Your task to perform on an android device: Open network settings Image 0: 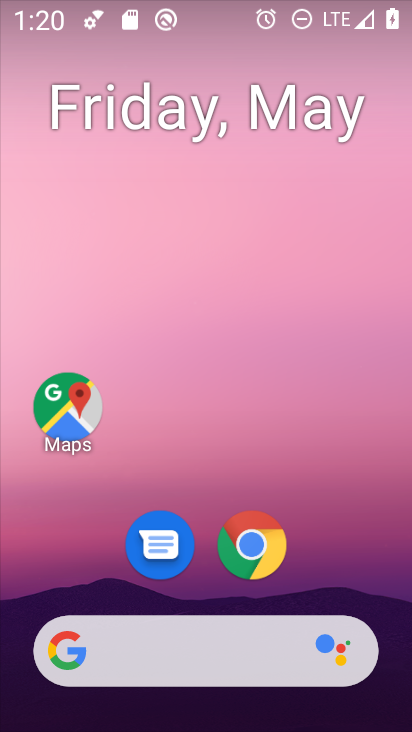
Step 0: drag from (325, 591) to (325, 198)
Your task to perform on an android device: Open network settings Image 1: 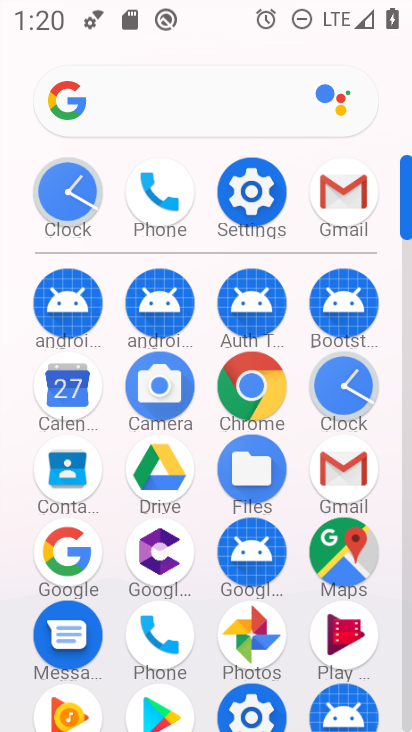
Step 1: click (241, 195)
Your task to perform on an android device: Open network settings Image 2: 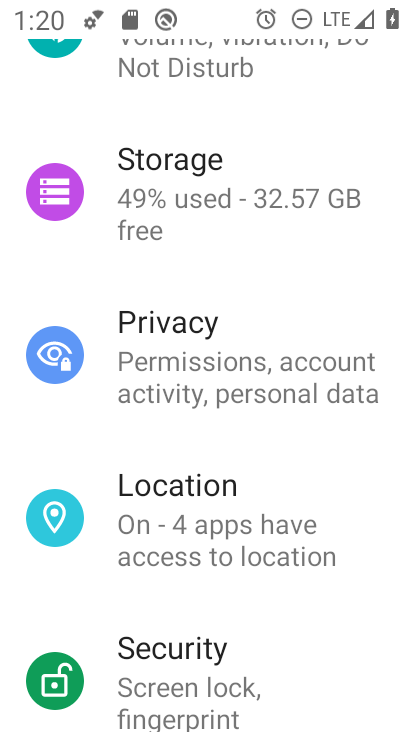
Step 2: drag from (192, 276) to (243, 581)
Your task to perform on an android device: Open network settings Image 3: 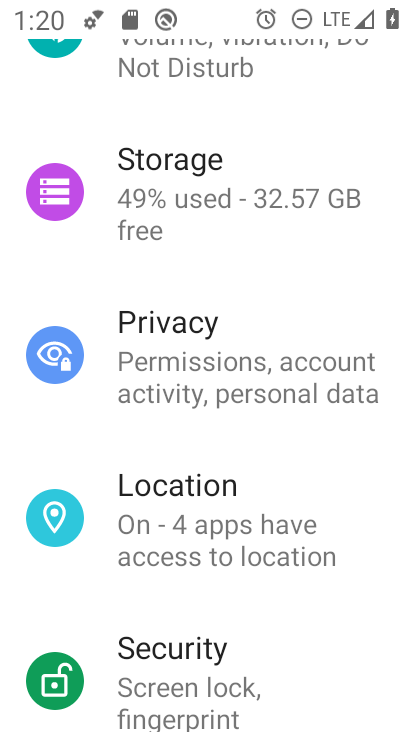
Step 3: drag from (233, 326) to (242, 514)
Your task to perform on an android device: Open network settings Image 4: 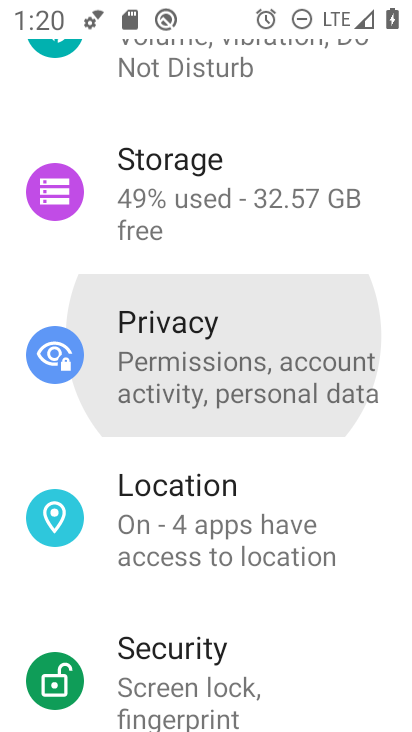
Step 4: drag from (215, 212) to (196, 527)
Your task to perform on an android device: Open network settings Image 5: 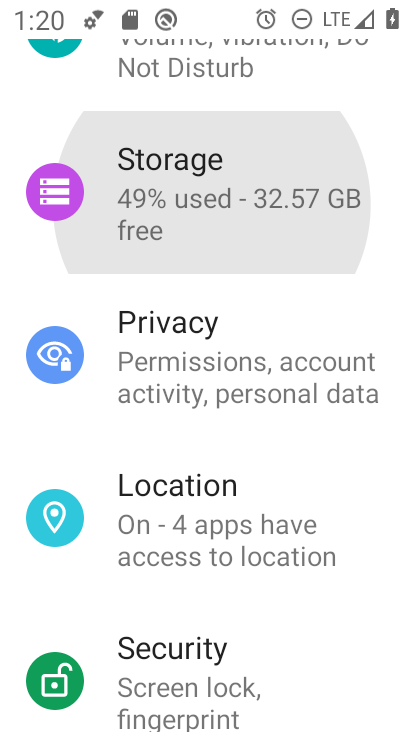
Step 5: drag from (150, 273) to (161, 532)
Your task to perform on an android device: Open network settings Image 6: 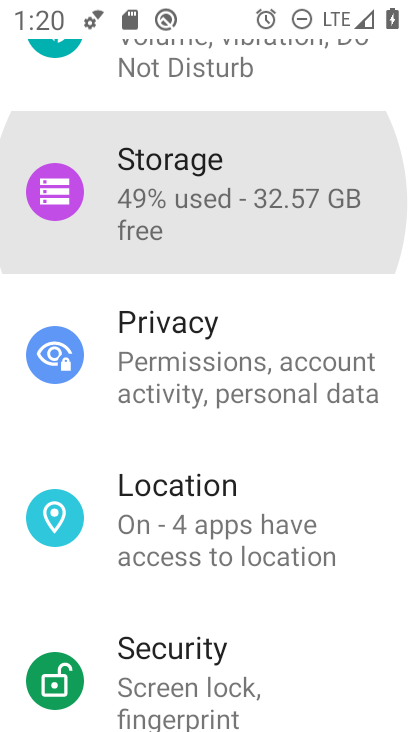
Step 6: drag from (190, 216) to (193, 475)
Your task to perform on an android device: Open network settings Image 7: 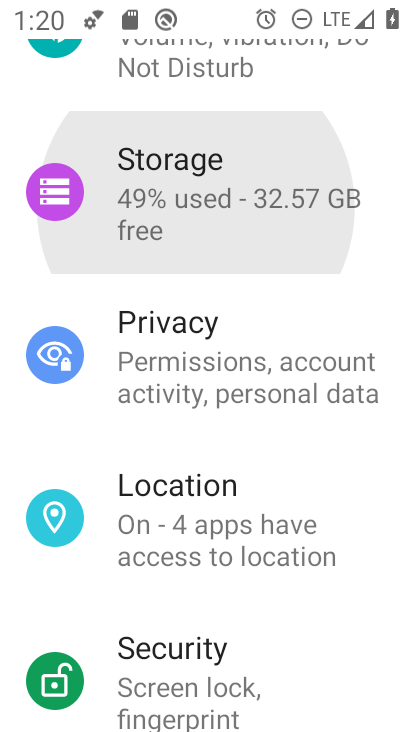
Step 7: drag from (199, 204) to (202, 530)
Your task to perform on an android device: Open network settings Image 8: 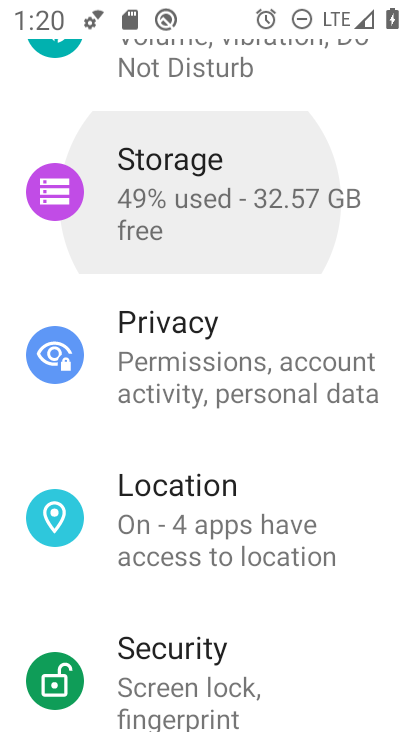
Step 8: drag from (181, 228) to (220, 621)
Your task to perform on an android device: Open network settings Image 9: 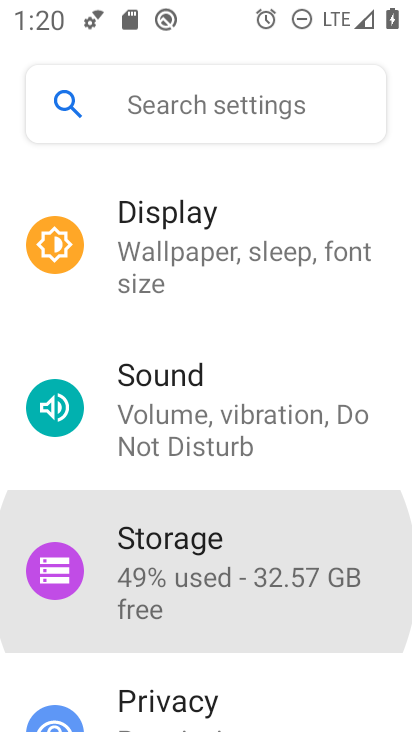
Step 9: drag from (231, 269) to (288, 635)
Your task to perform on an android device: Open network settings Image 10: 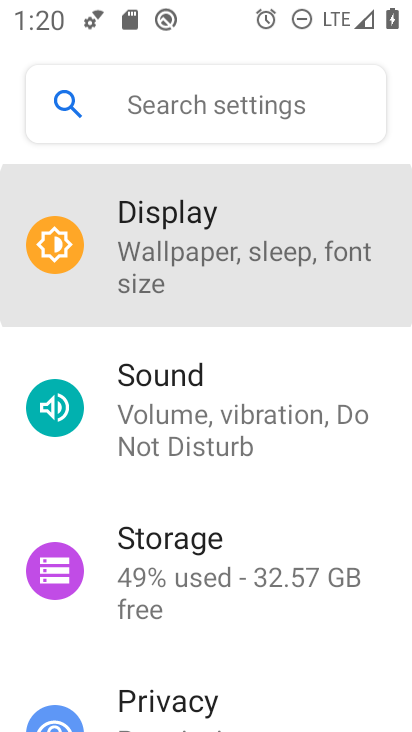
Step 10: drag from (292, 253) to (321, 539)
Your task to perform on an android device: Open network settings Image 11: 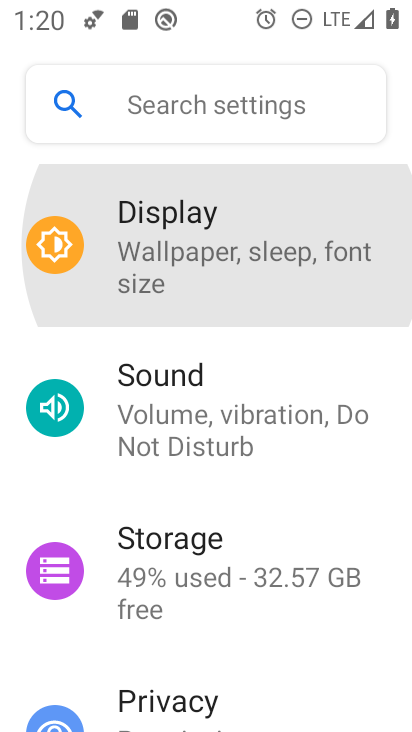
Step 11: drag from (280, 258) to (291, 484)
Your task to perform on an android device: Open network settings Image 12: 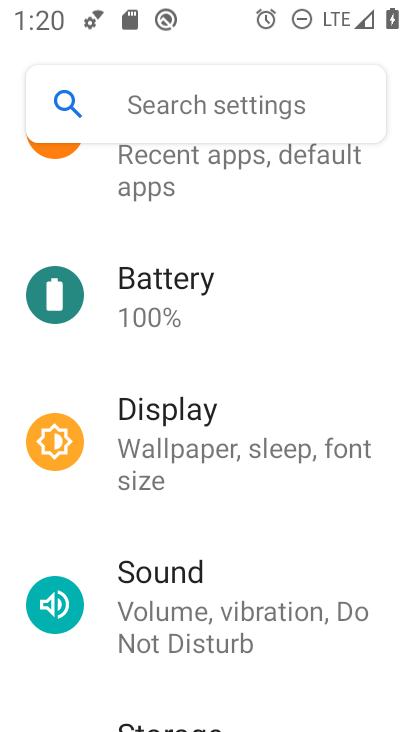
Step 12: drag from (287, 255) to (302, 584)
Your task to perform on an android device: Open network settings Image 13: 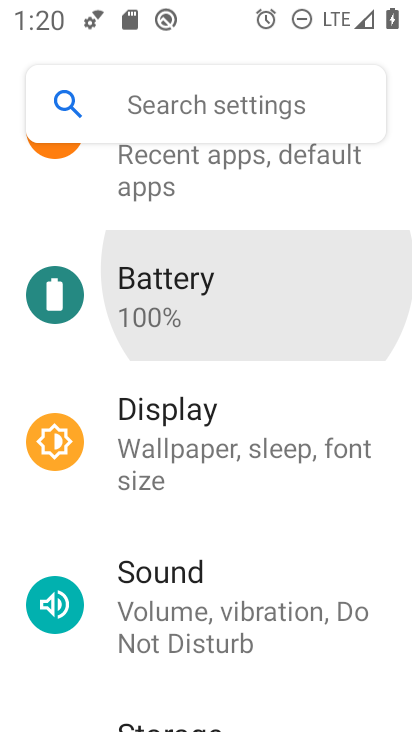
Step 13: drag from (194, 292) to (214, 645)
Your task to perform on an android device: Open network settings Image 14: 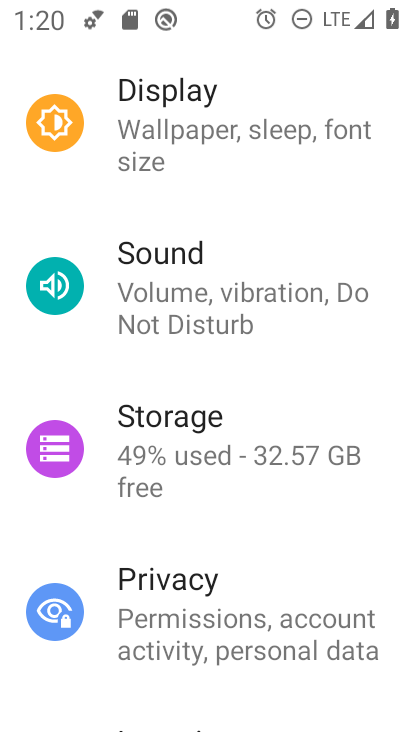
Step 14: drag from (204, 337) to (212, 657)
Your task to perform on an android device: Open network settings Image 15: 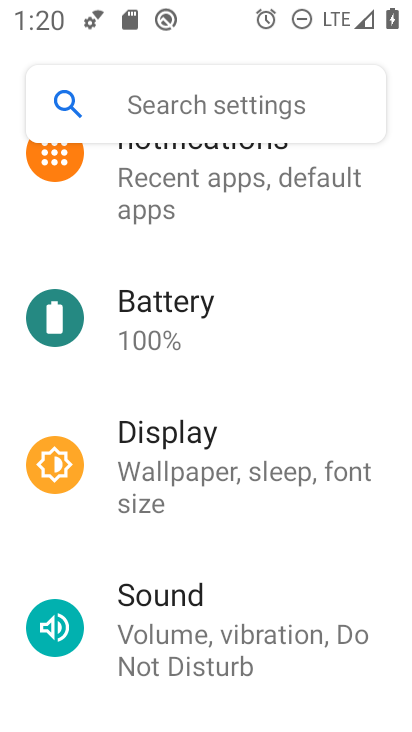
Step 15: drag from (197, 183) to (318, 701)
Your task to perform on an android device: Open network settings Image 16: 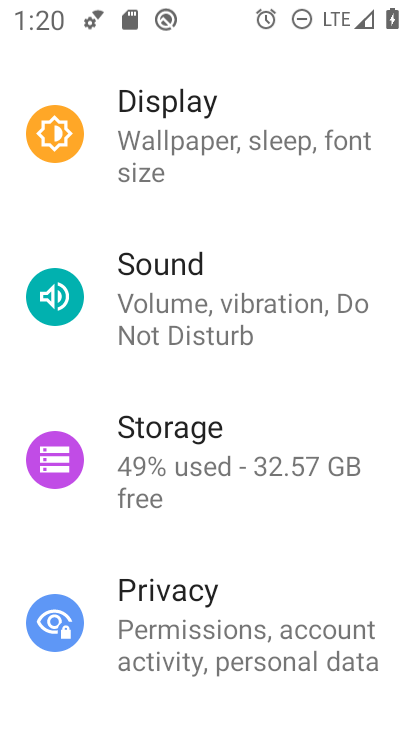
Step 16: drag from (200, 338) to (230, 681)
Your task to perform on an android device: Open network settings Image 17: 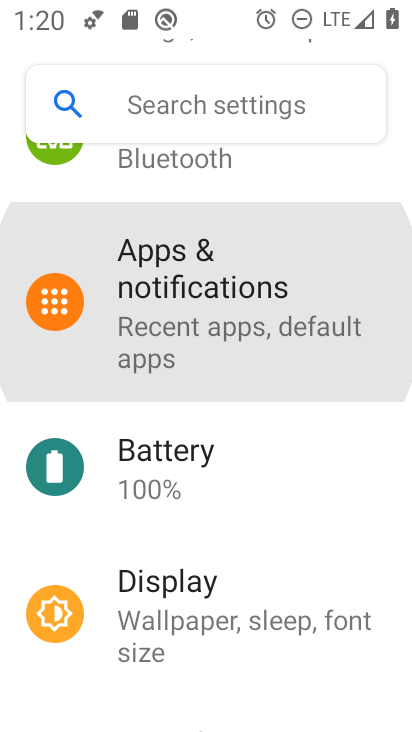
Step 17: drag from (197, 265) to (213, 563)
Your task to perform on an android device: Open network settings Image 18: 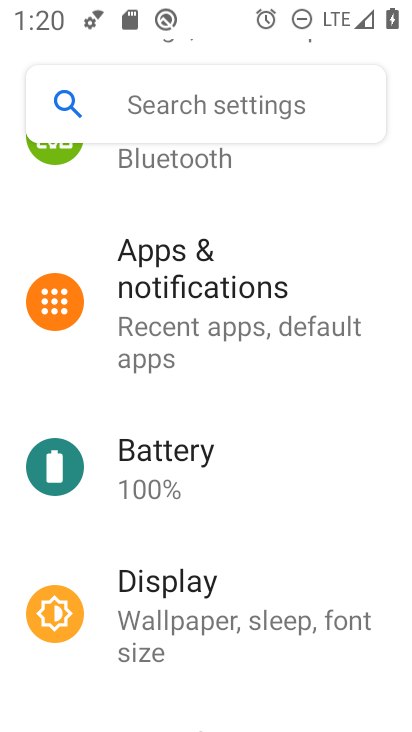
Step 18: drag from (189, 192) to (257, 509)
Your task to perform on an android device: Open network settings Image 19: 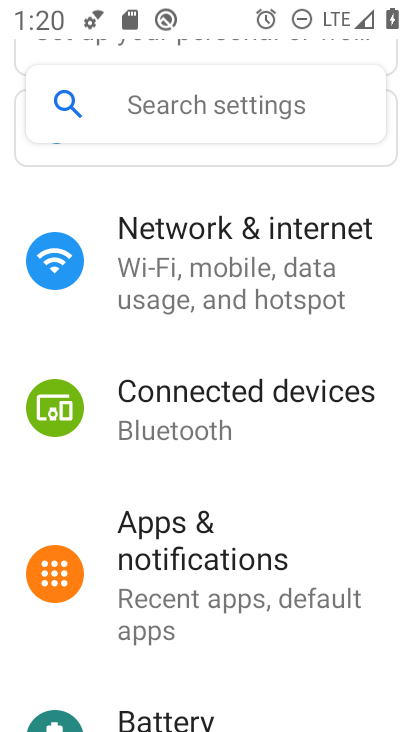
Step 19: drag from (263, 269) to (281, 620)
Your task to perform on an android device: Open network settings Image 20: 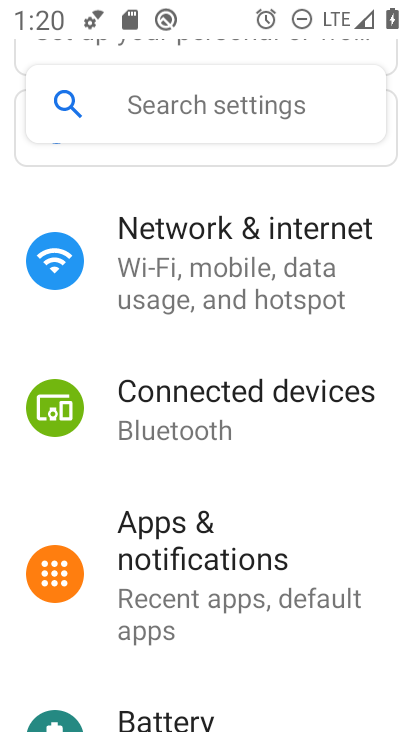
Step 20: click (193, 260)
Your task to perform on an android device: Open network settings Image 21: 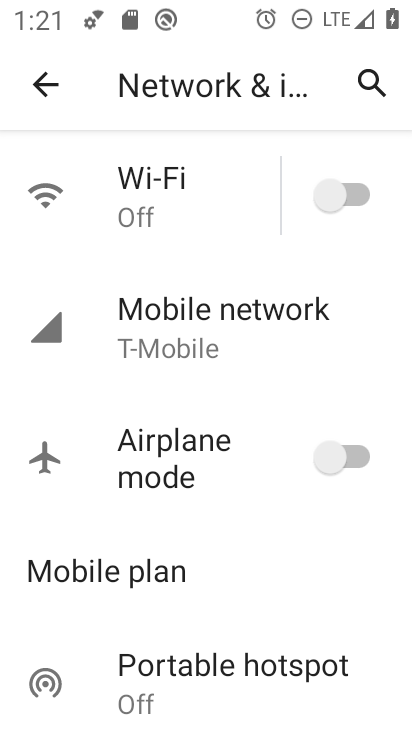
Step 21: task complete